Your task to perform on an android device: Search for Mexican restaurants on Maps Image 0: 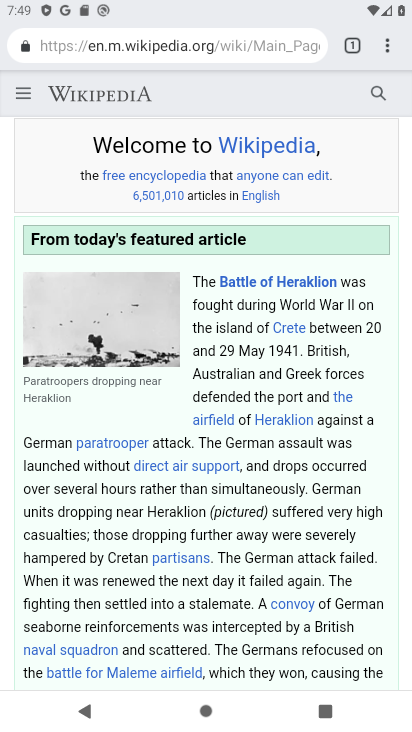
Step 0: press home button
Your task to perform on an android device: Search for Mexican restaurants on Maps Image 1: 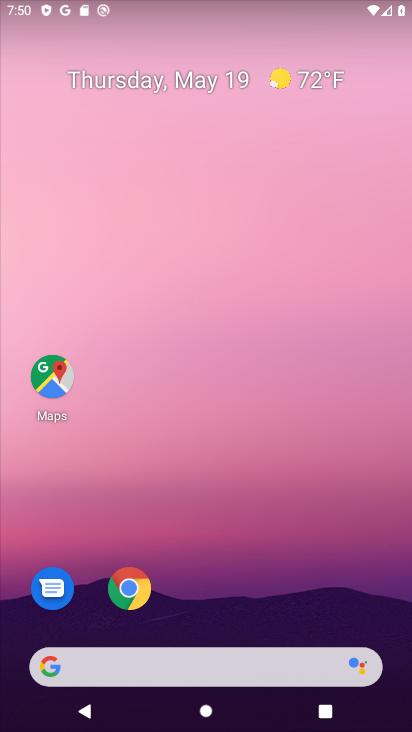
Step 1: click (40, 371)
Your task to perform on an android device: Search for Mexican restaurants on Maps Image 2: 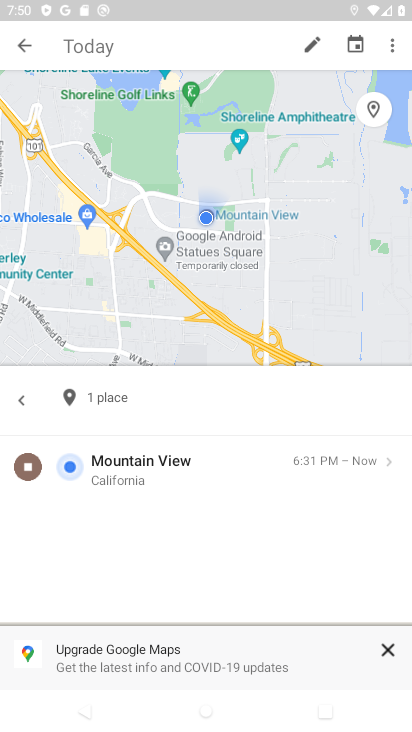
Step 2: click (33, 45)
Your task to perform on an android device: Search for Mexican restaurants on Maps Image 3: 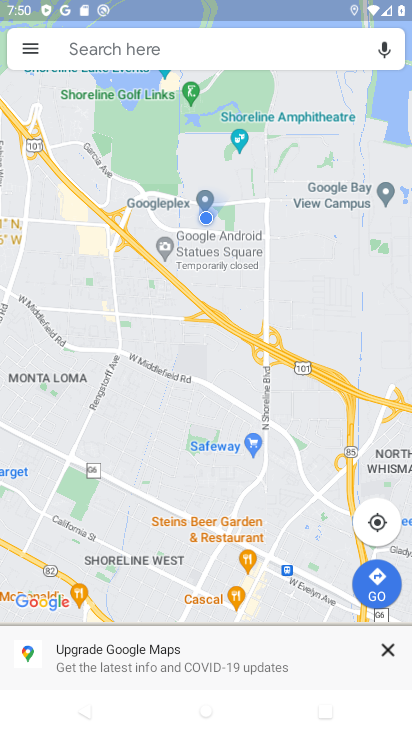
Step 3: click (188, 39)
Your task to perform on an android device: Search for Mexican restaurants on Maps Image 4: 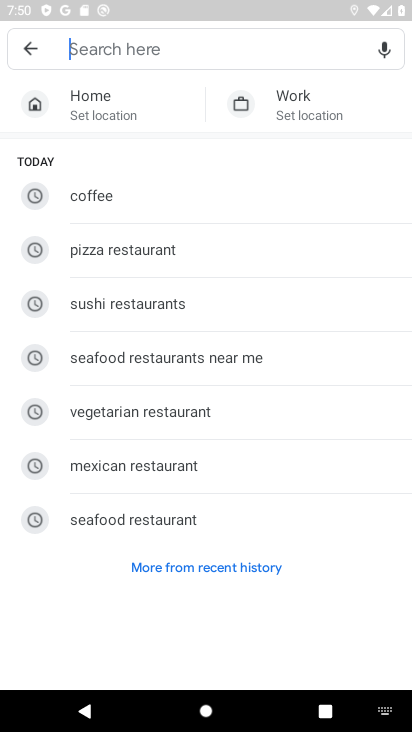
Step 4: click (151, 463)
Your task to perform on an android device: Search for Mexican restaurants on Maps Image 5: 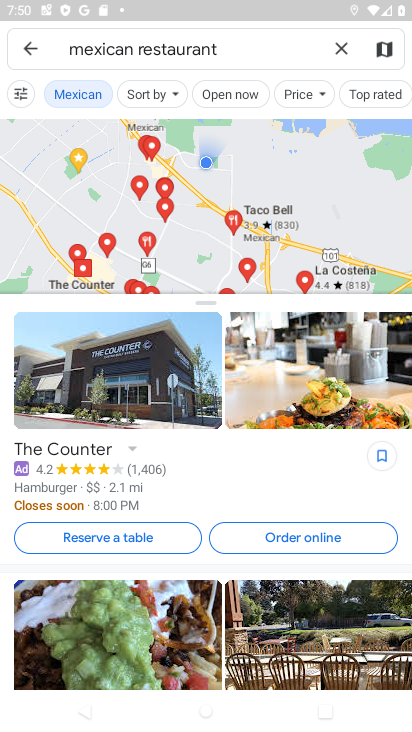
Step 5: task complete